Your task to perform on an android device: set default search engine in the chrome app Image 0: 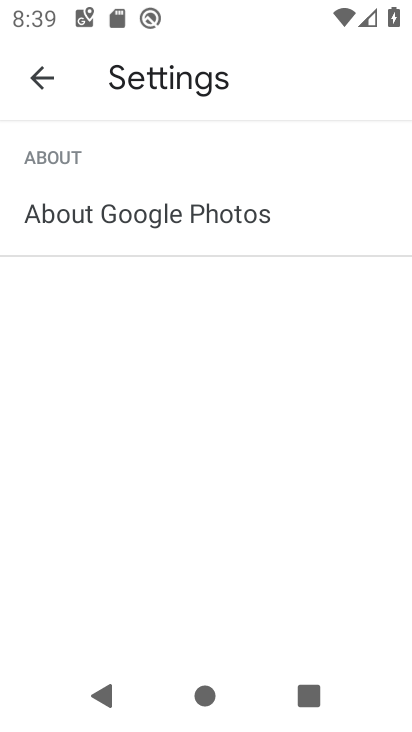
Step 0: press home button
Your task to perform on an android device: set default search engine in the chrome app Image 1: 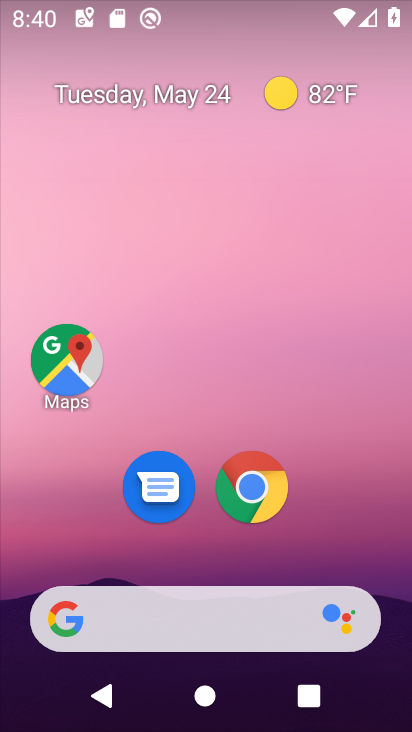
Step 1: drag from (359, 523) to (353, 185)
Your task to perform on an android device: set default search engine in the chrome app Image 2: 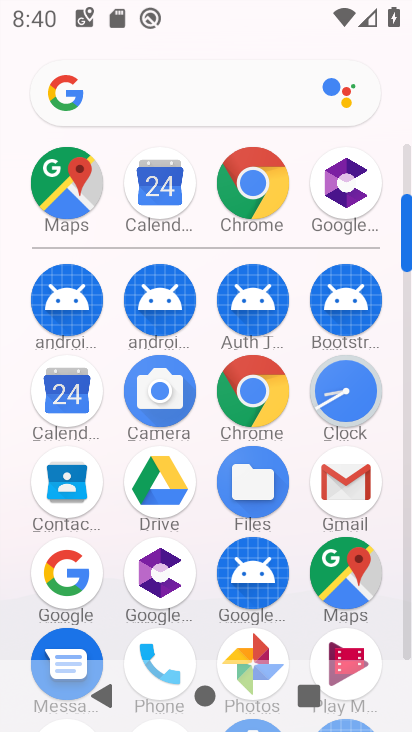
Step 2: click (264, 406)
Your task to perform on an android device: set default search engine in the chrome app Image 3: 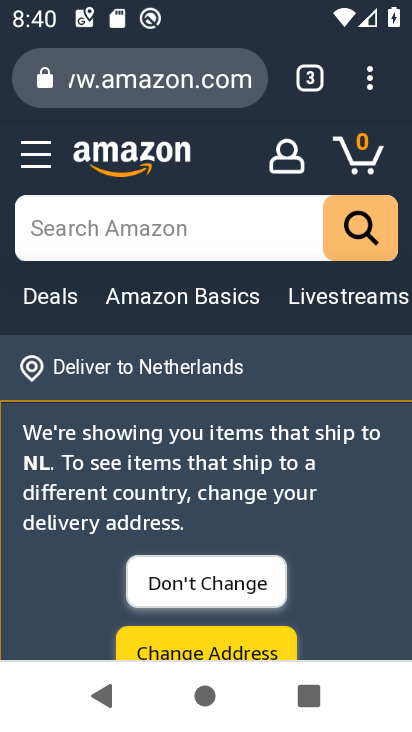
Step 3: drag from (378, 88) to (191, 551)
Your task to perform on an android device: set default search engine in the chrome app Image 4: 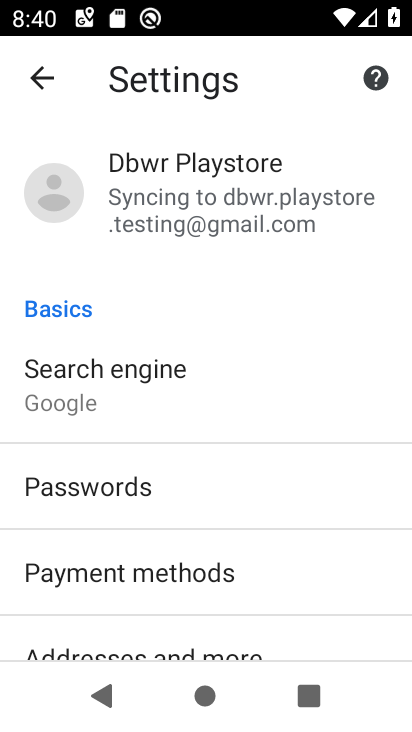
Step 4: drag from (241, 598) to (271, 364)
Your task to perform on an android device: set default search engine in the chrome app Image 5: 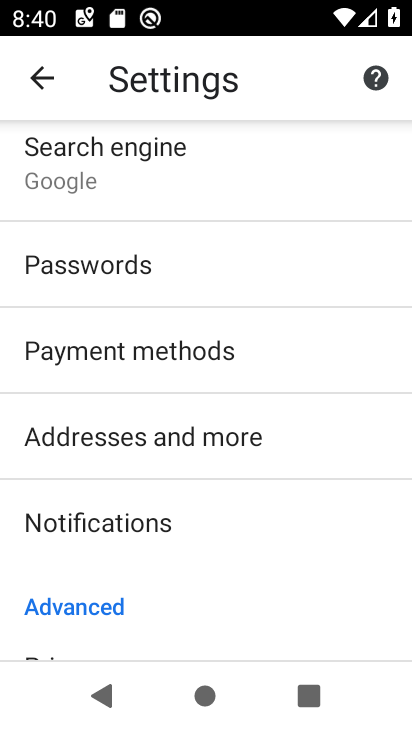
Step 5: click (109, 151)
Your task to perform on an android device: set default search engine in the chrome app Image 6: 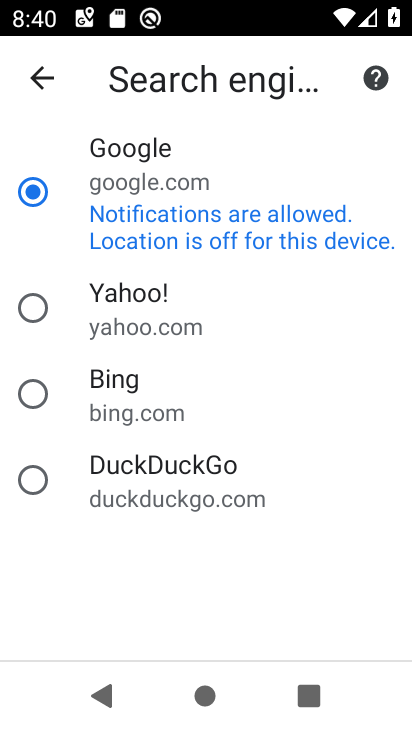
Step 6: click (27, 319)
Your task to perform on an android device: set default search engine in the chrome app Image 7: 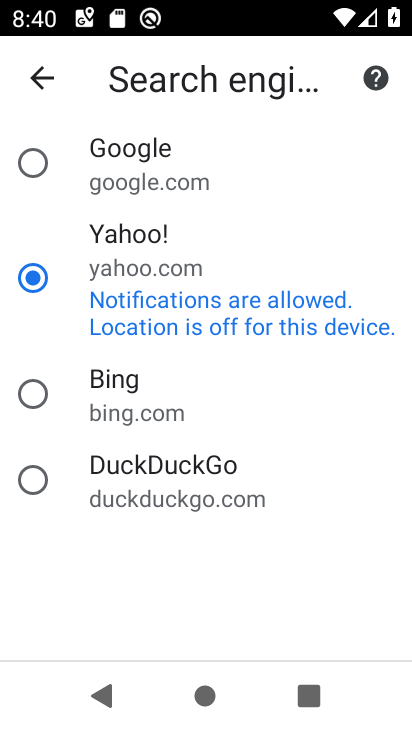
Step 7: task complete